Your task to perform on an android device: check google app version Image 0: 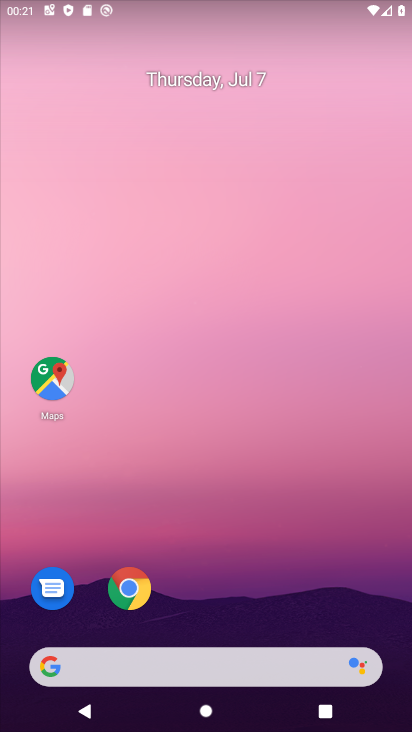
Step 0: drag from (262, 726) to (247, 95)
Your task to perform on an android device: check google app version Image 1: 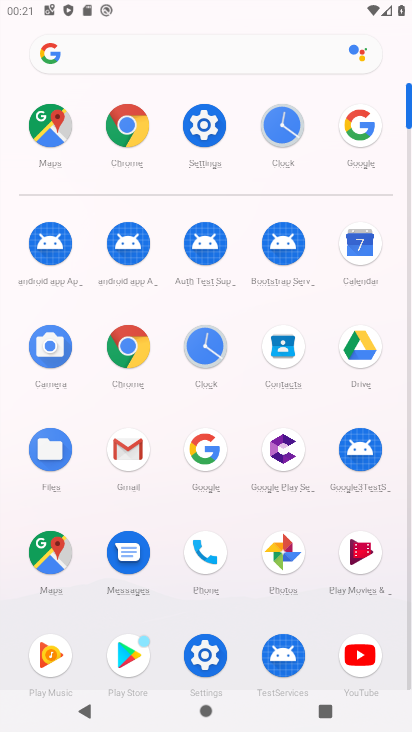
Step 1: click (359, 123)
Your task to perform on an android device: check google app version Image 2: 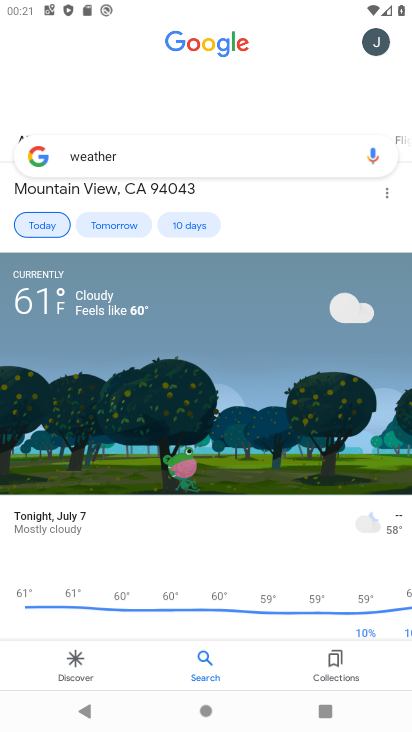
Step 2: click (378, 44)
Your task to perform on an android device: check google app version Image 3: 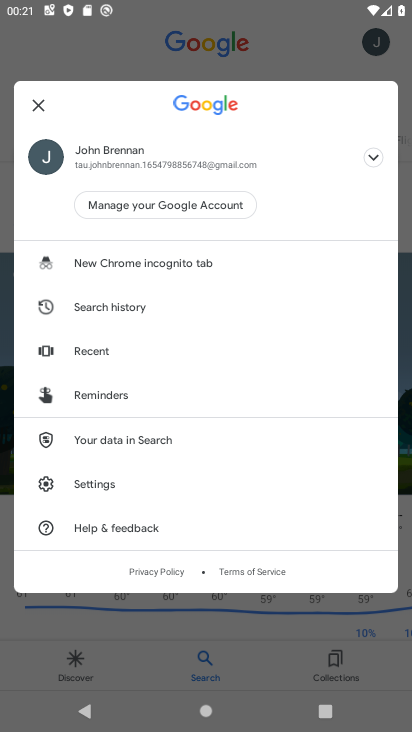
Step 3: click (87, 482)
Your task to perform on an android device: check google app version Image 4: 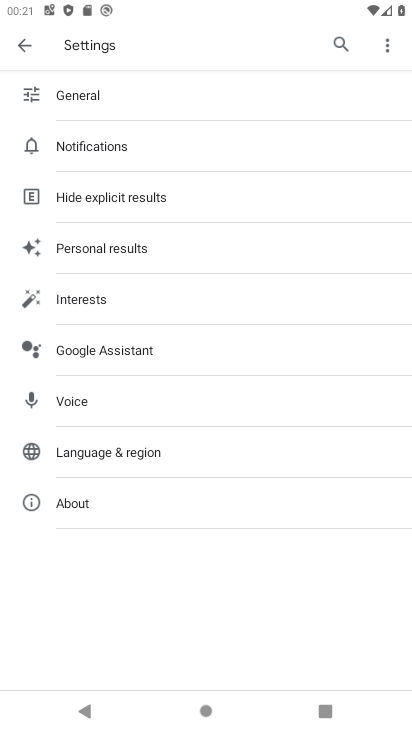
Step 4: click (70, 499)
Your task to perform on an android device: check google app version Image 5: 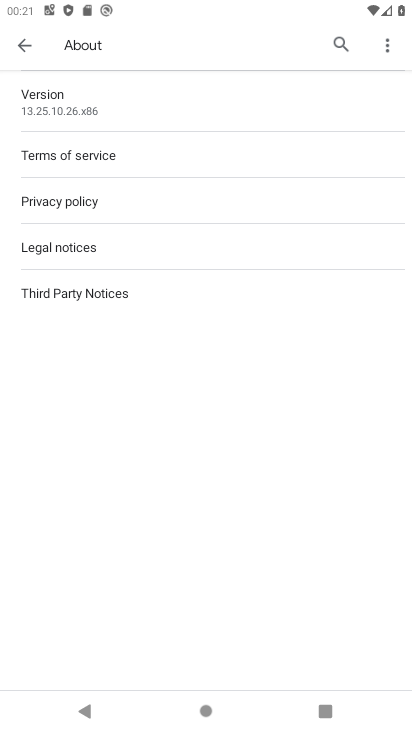
Step 5: click (63, 105)
Your task to perform on an android device: check google app version Image 6: 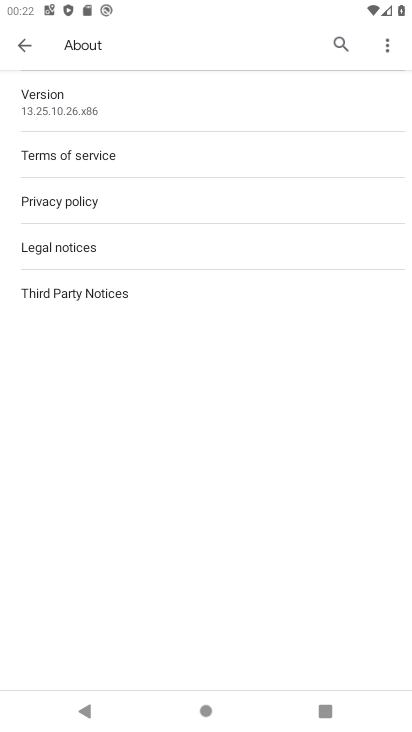
Step 6: task complete